Your task to perform on an android device: Open Google Image 0: 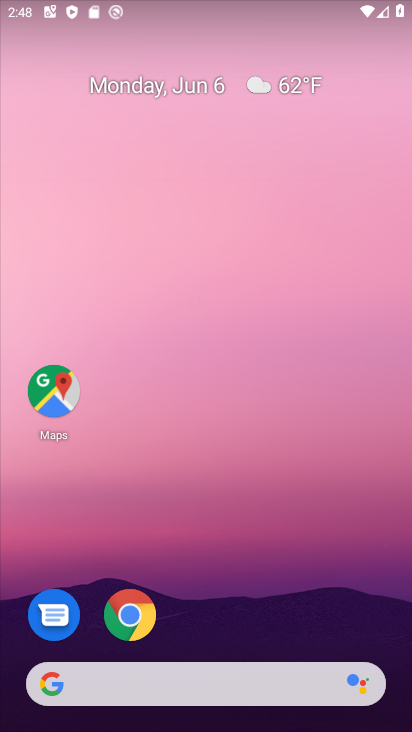
Step 0: drag from (306, 661) to (325, 4)
Your task to perform on an android device: Open Google Image 1: 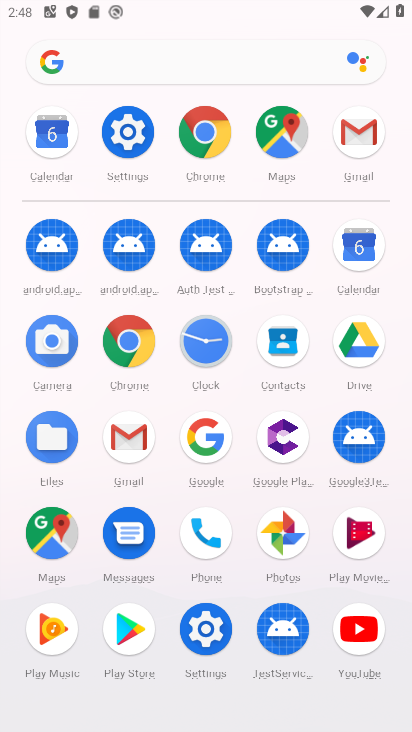
Step 1: click (132, 348)
Your task to perform on an android device: Open Google Image 2: 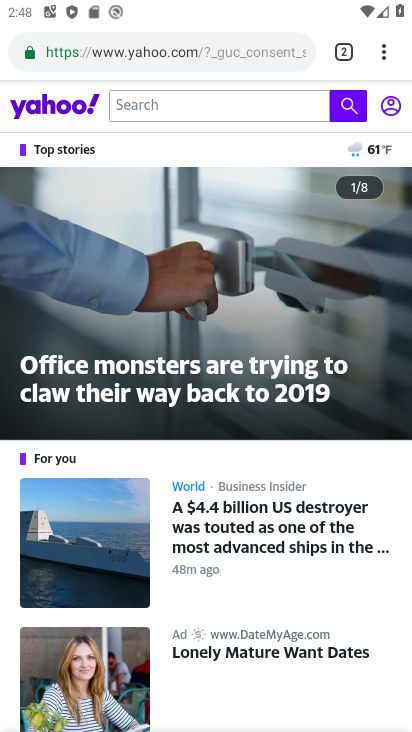
Step 2: task complete